Your task to perform on an android device: Go to location settings Image 0: 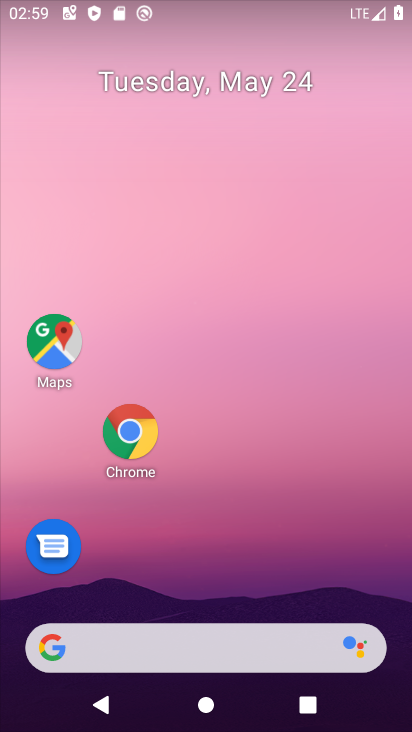
Step 0: drag from (219, 602) to (310, 66)
Your task to perform on an android device: Go to location settings Image 1: 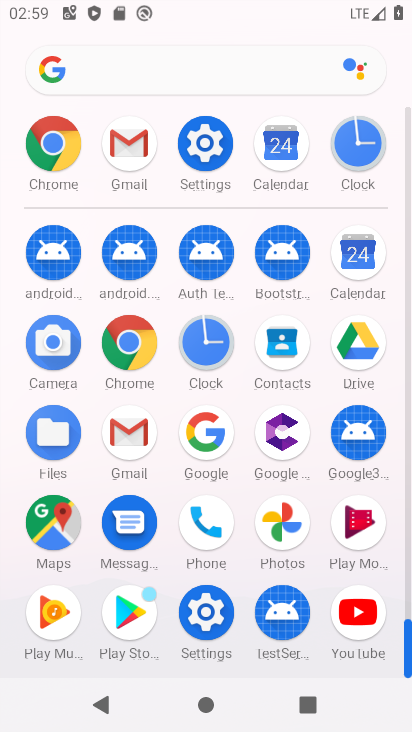
Step 1: click (181, 135)
Your task to perform on an android device: Go to location settings Image 2: 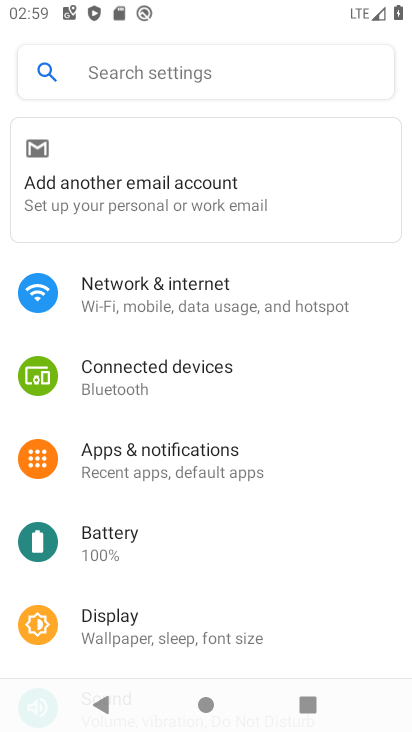
Step 2: drag from (191, 553) to (212, 254)
Your task to perform on an android device: Go to location settings Image 3: 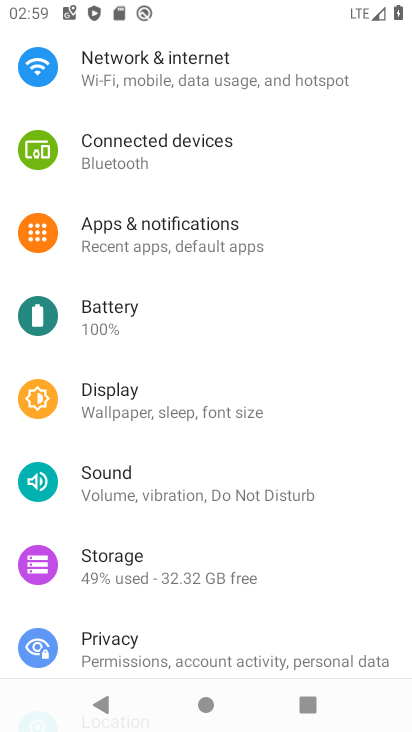
Step 3: drag from (161, 547) to (279, 207)
Your task to perform on an android device: Go to location settings Image 4: 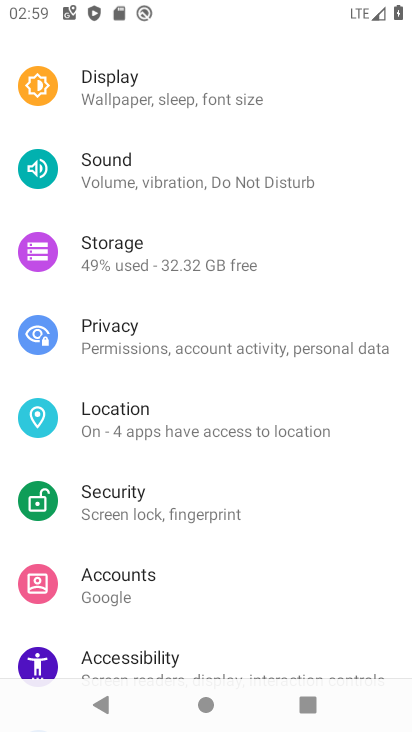
Step 4: click (116, 418)
Your task to perform on an android device: Go to location settings Image 5: 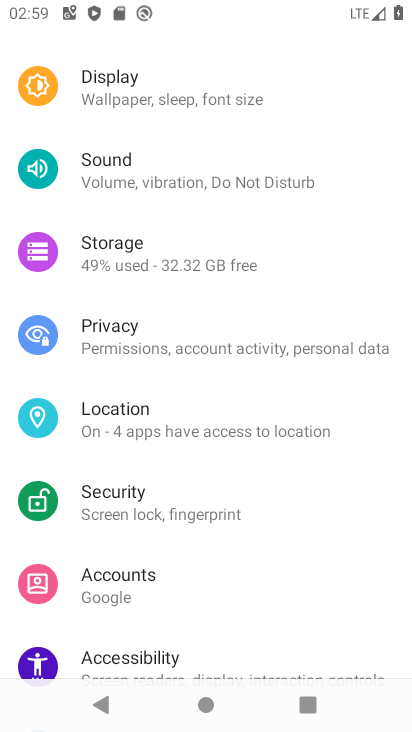
Step 5: click (116, 418)
Your task to perform on an android device: Go to location settings Image 6: 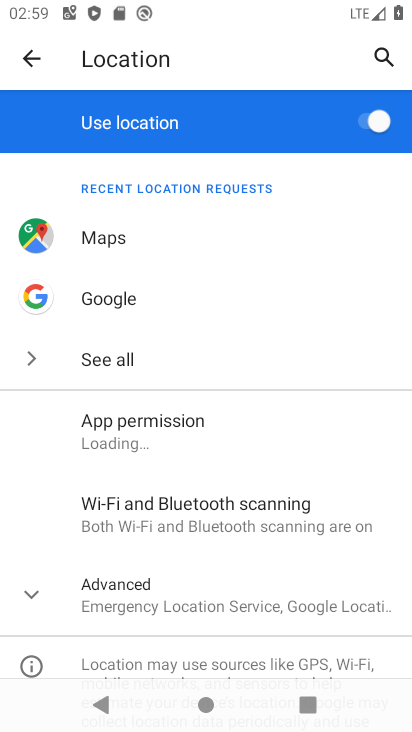
Step 6: task complete